Your task to perform on an android device: turn pop-ups off in chrome Image 0: 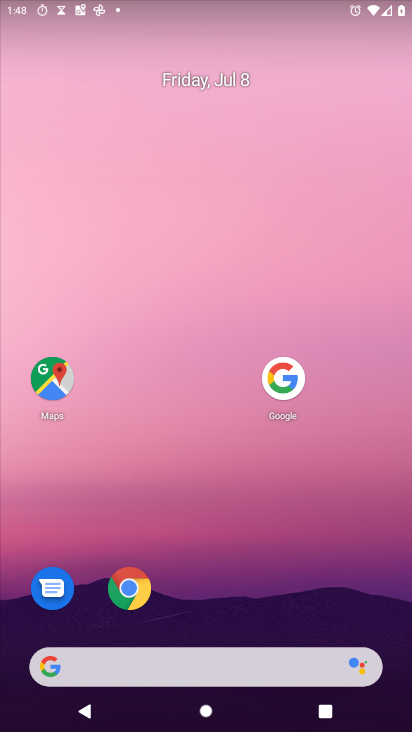
Step 0: drag from (173, 648) to (247, 148)
Your task to perform on an android device: turn pop-ups off in chrome Image 1: 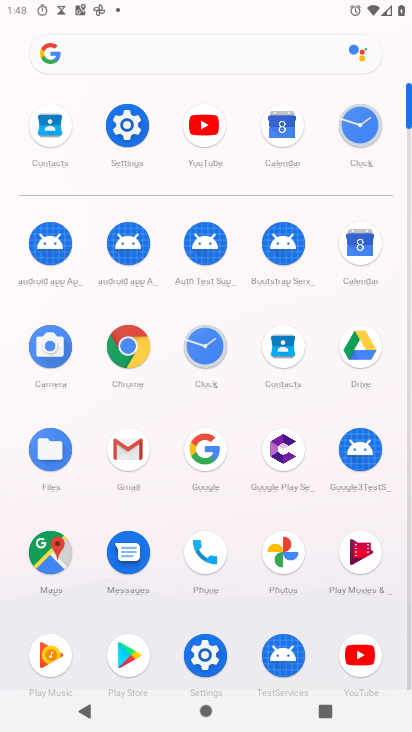
Step 1: click (127, 348)
Your task to perform on an android device: turn pop-ups off in chrome Image 2: 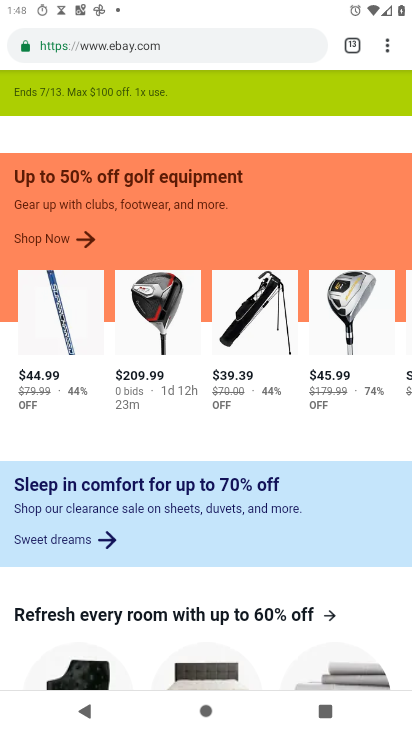
Step 2: drag from (386, 42) to (219, 554)
Your task to perform on an android device: turn pop-ups off in chrome Image 3: 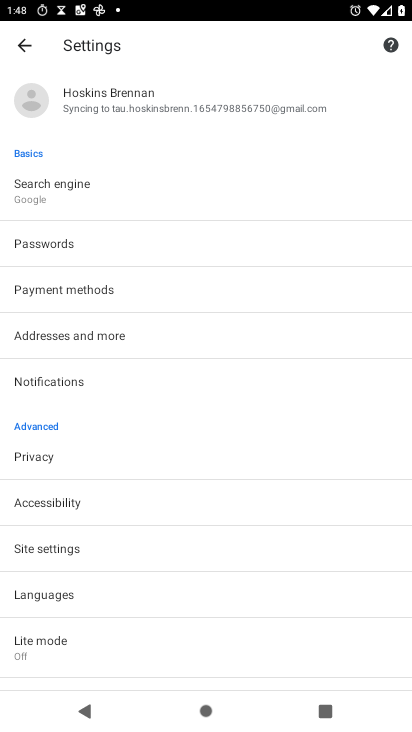
Step 3: click (44, 547)
Your task to perform on an android device: turn pop-ups off in chrome Image 4: 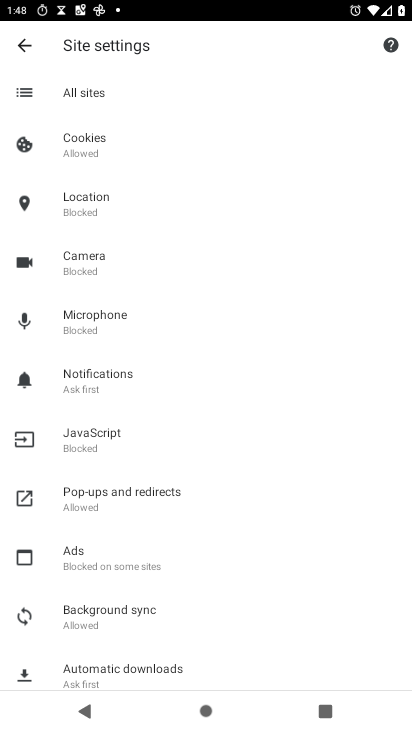
Step 4: click (86, 491)
Your task to perform on an android device: turn pop-ups off in chrome Image 5: 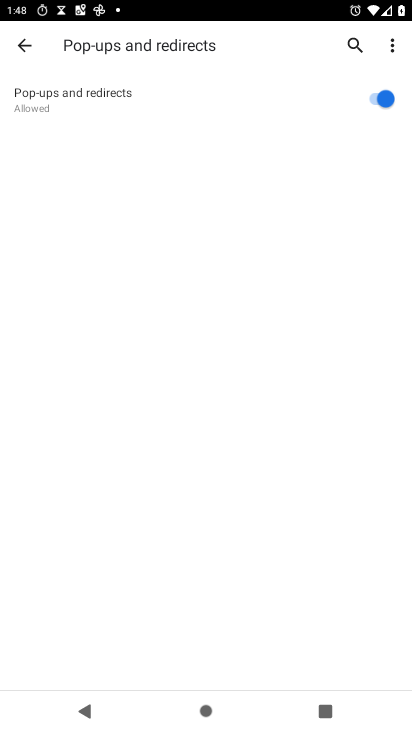
Step 5: click (372, 95)
Your task to perform on an android device: turn pop-ups off in chrome Image 6: 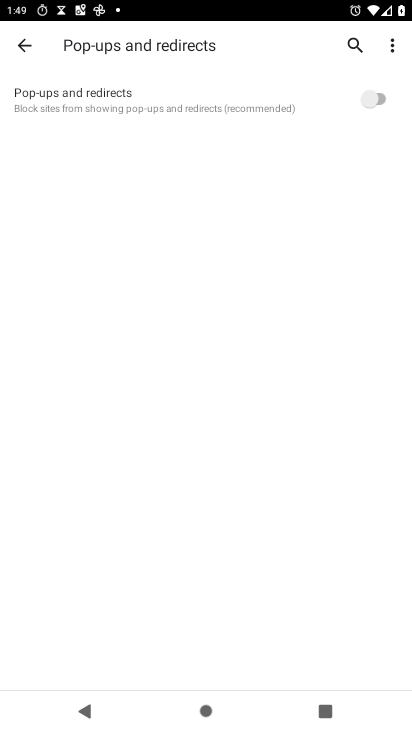
Step 6: task complete